Your task to perform on an android device: What's the weather? Image 0: 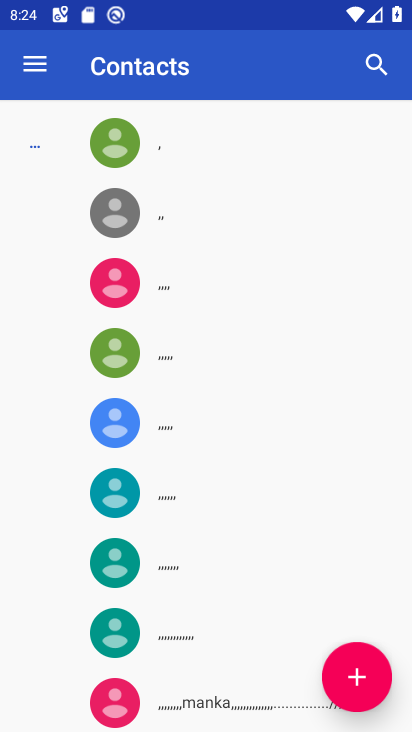
Step 0: press home button
Your task to perform on an android device: What's the weather? Image 1: 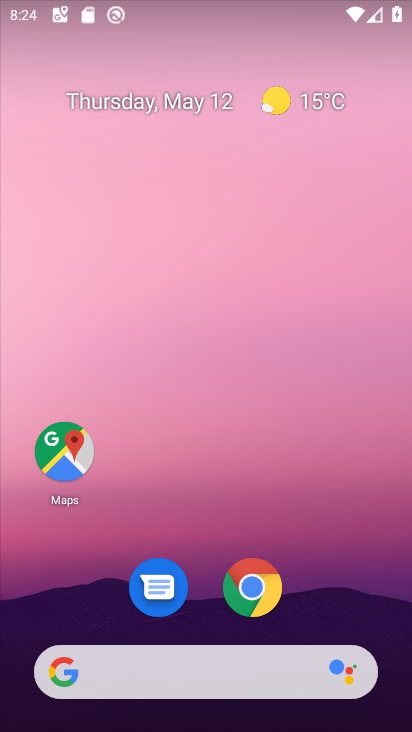
Step 1: click (191, 666)
Your task to perform on an android device: What's the weather? Image 2: 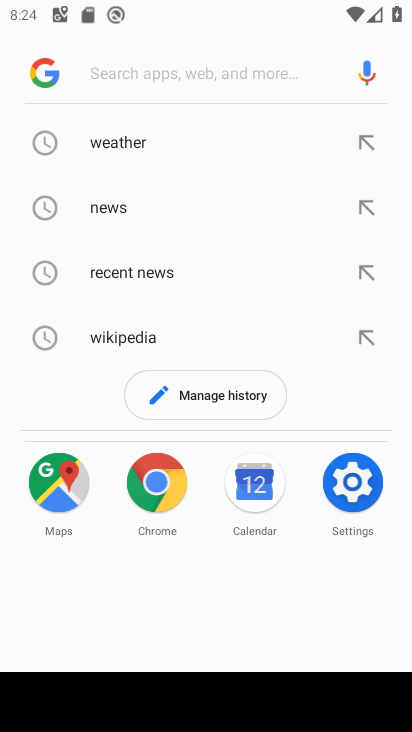
Step 2: click (150, 144)
Your task to perform on an android device: What's the weather? Image 3: 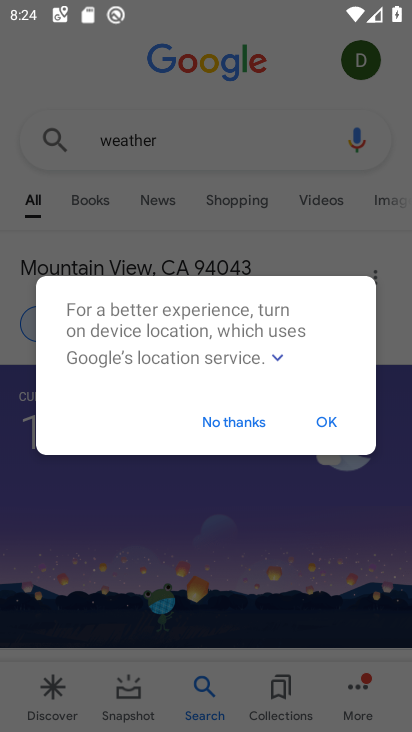
Step 3: click (232, 409)
Your task to perform on an android device: What's the weather? Image 4: 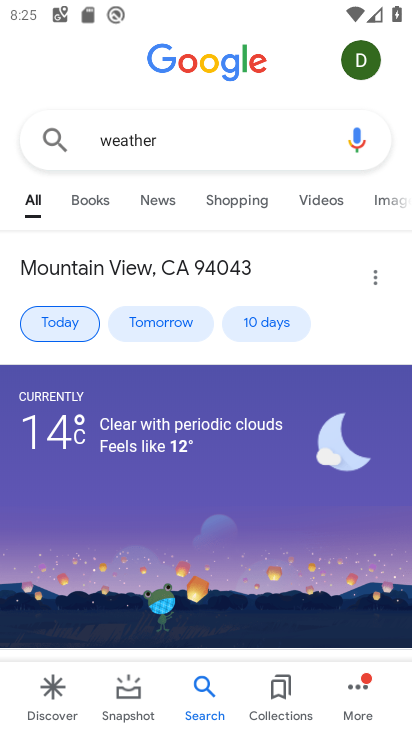
Step 4: task complete